Your task to perform on an android device: uninstall "Google Keep" Image 0: 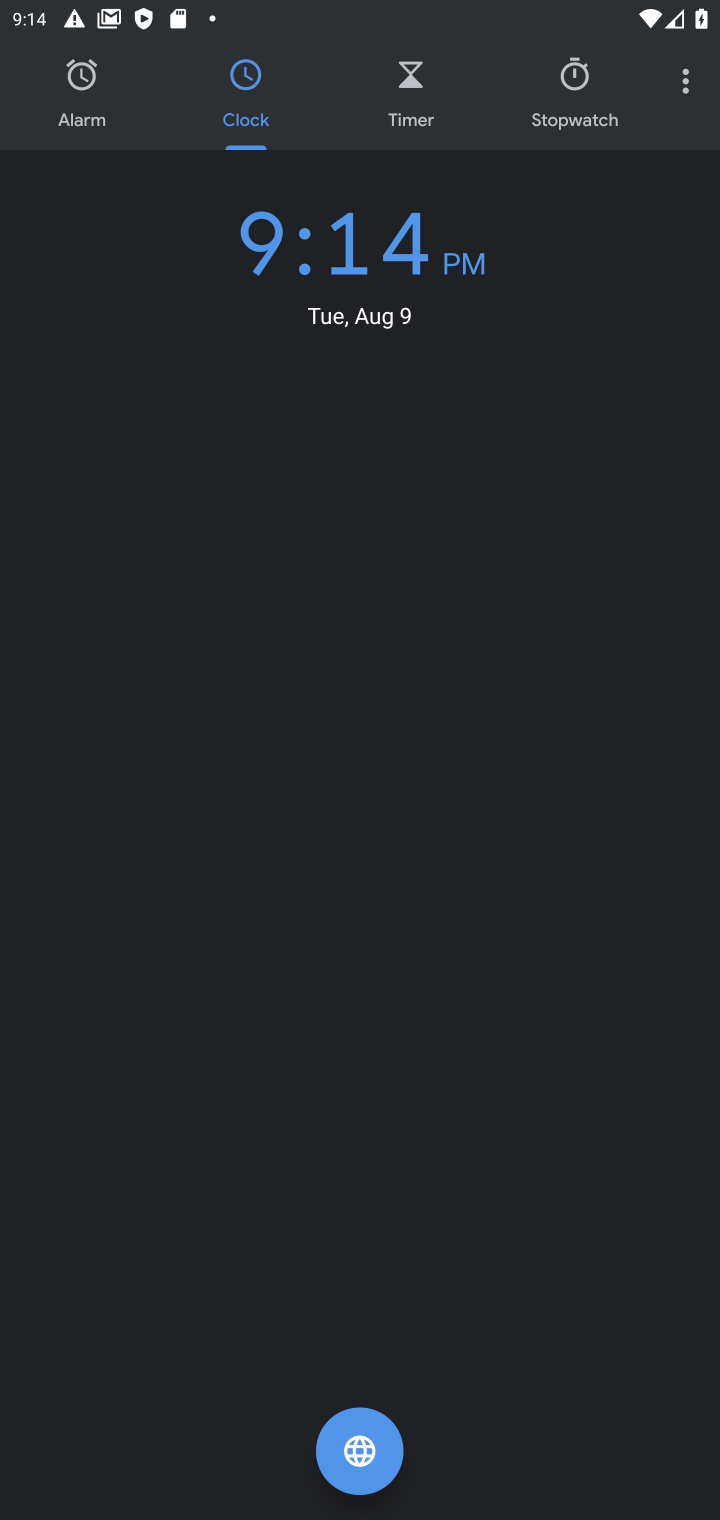
Step 0: press home button
Your task to perform on an android device: uninstall "Google Keep" Image 1: 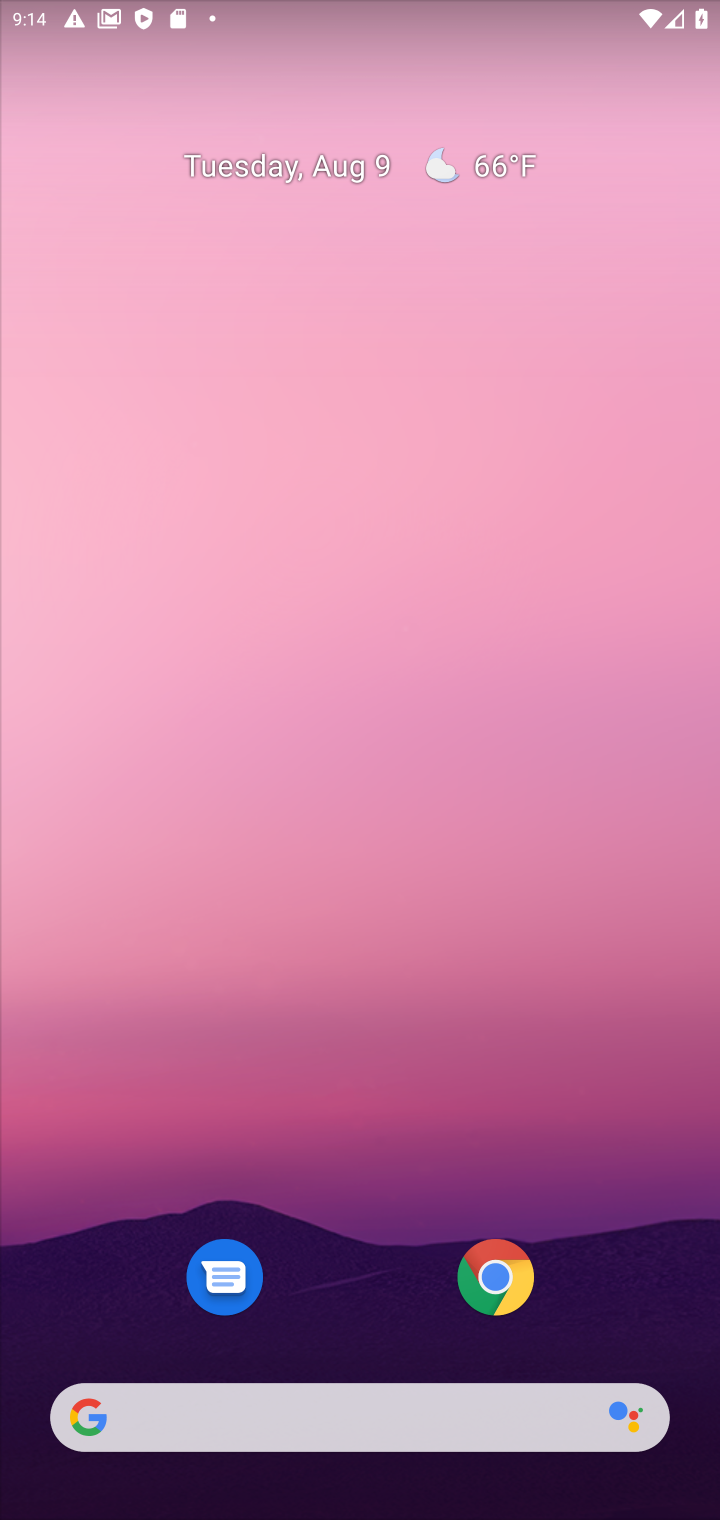
Step 1: drag from (375, 1350) to (511, 84)
Your task to perform on an android device: uninstall "Google Keep" Image 2: 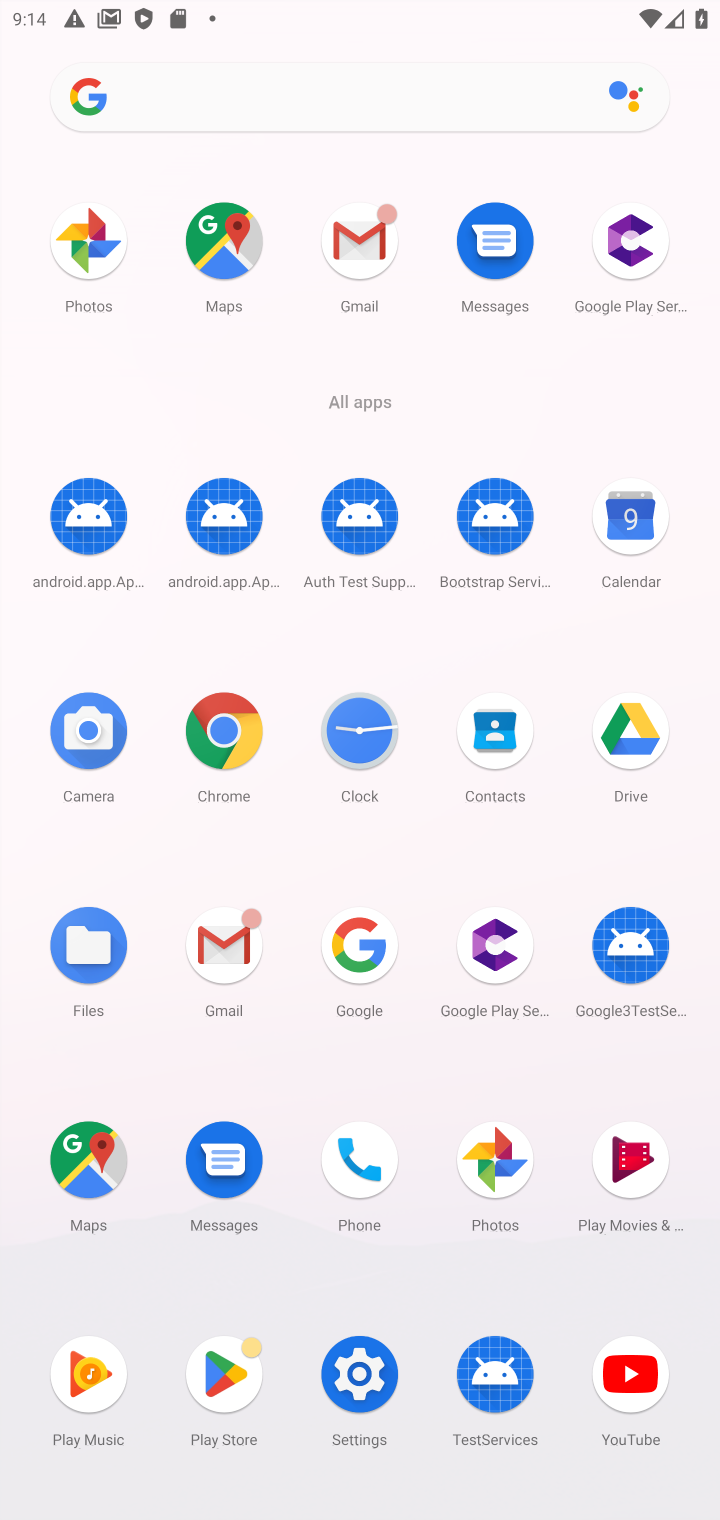
Step 2: click (229, 1367)
Your task to perform on an android device: uninstall "Google Keep" Image 3: 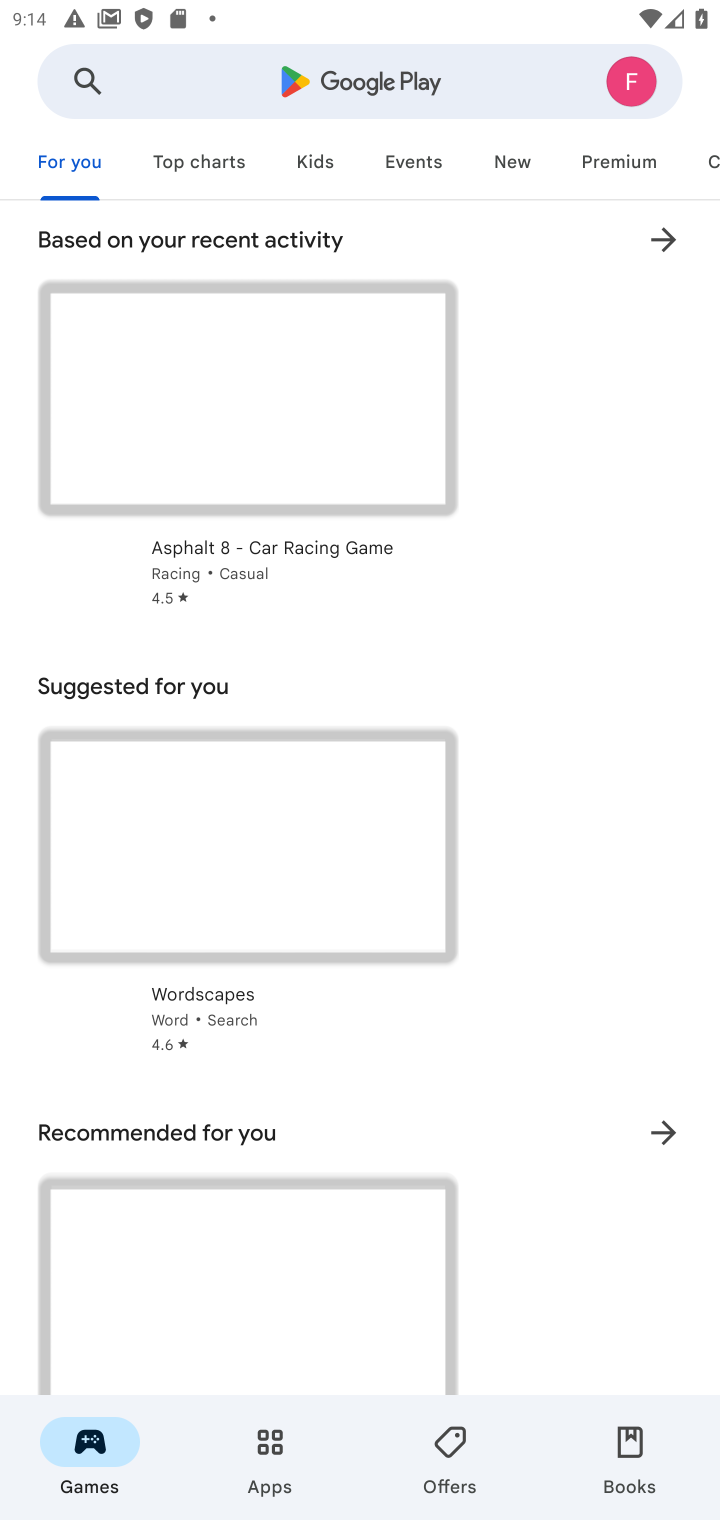
Step 3: click (194, 79)
Your task to perform on an android device: uninstall "Google Keep" Image 4: 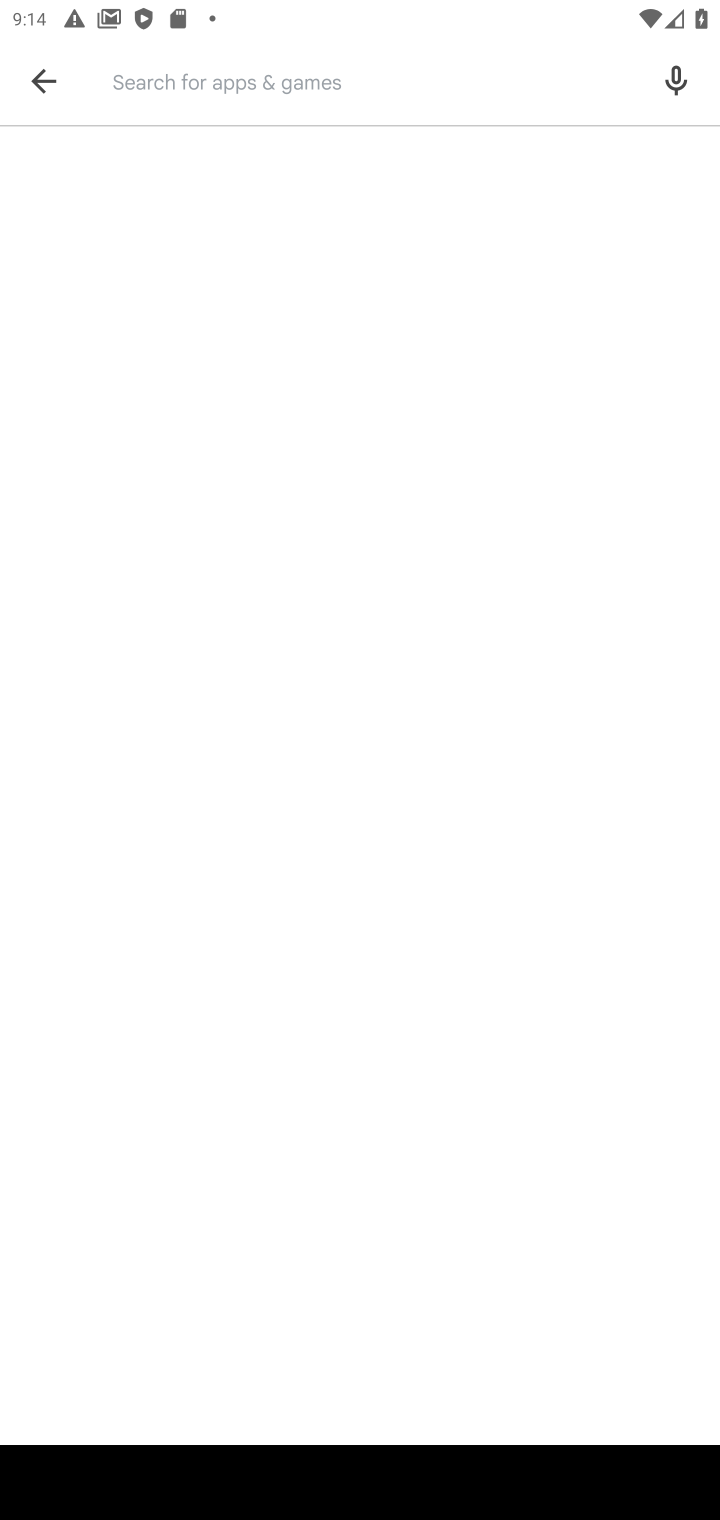
Step 4: type "Google Keep"
Your task to perform on an android device: uninstall "Google Keep" Image 5: 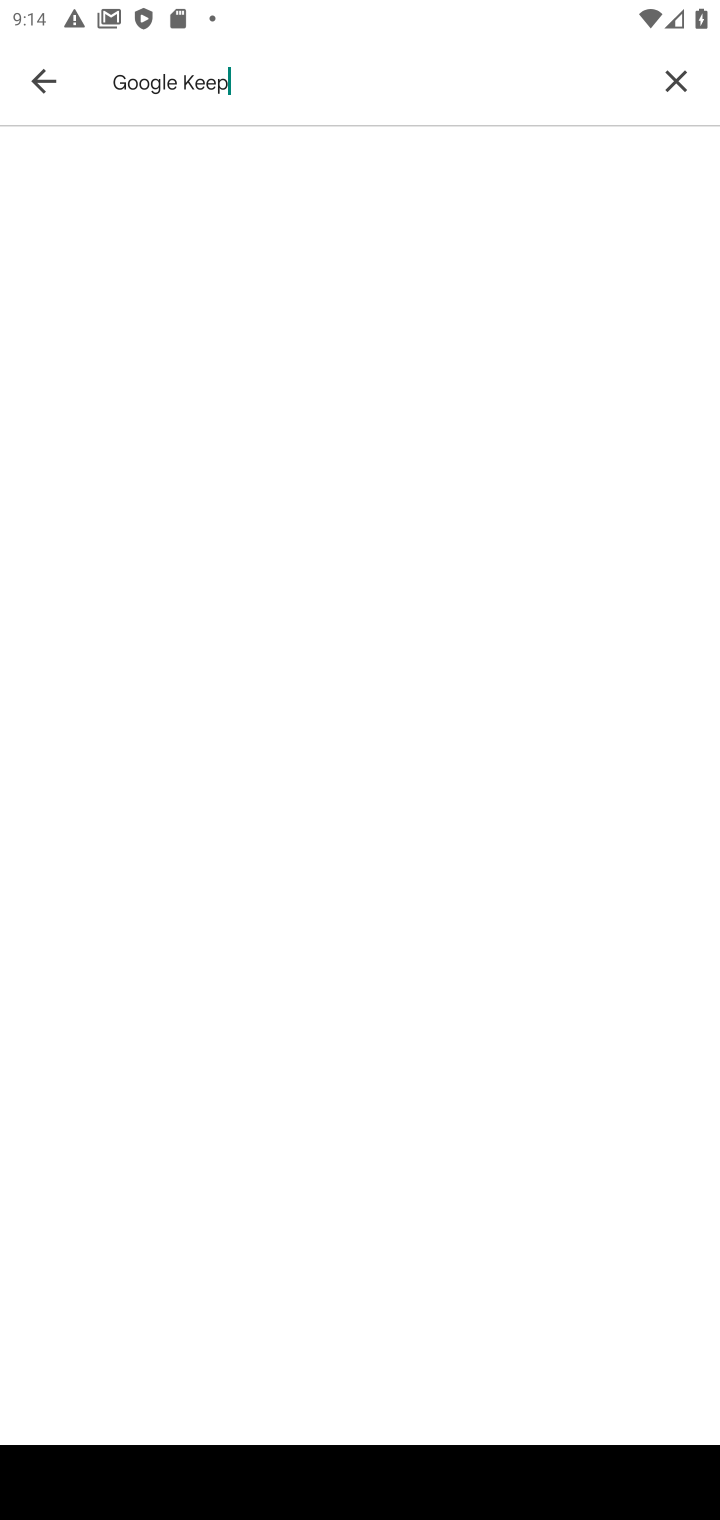
Step 5: type ""
Your task to perform on an android device: uninstall "Google Keep" Image 6: 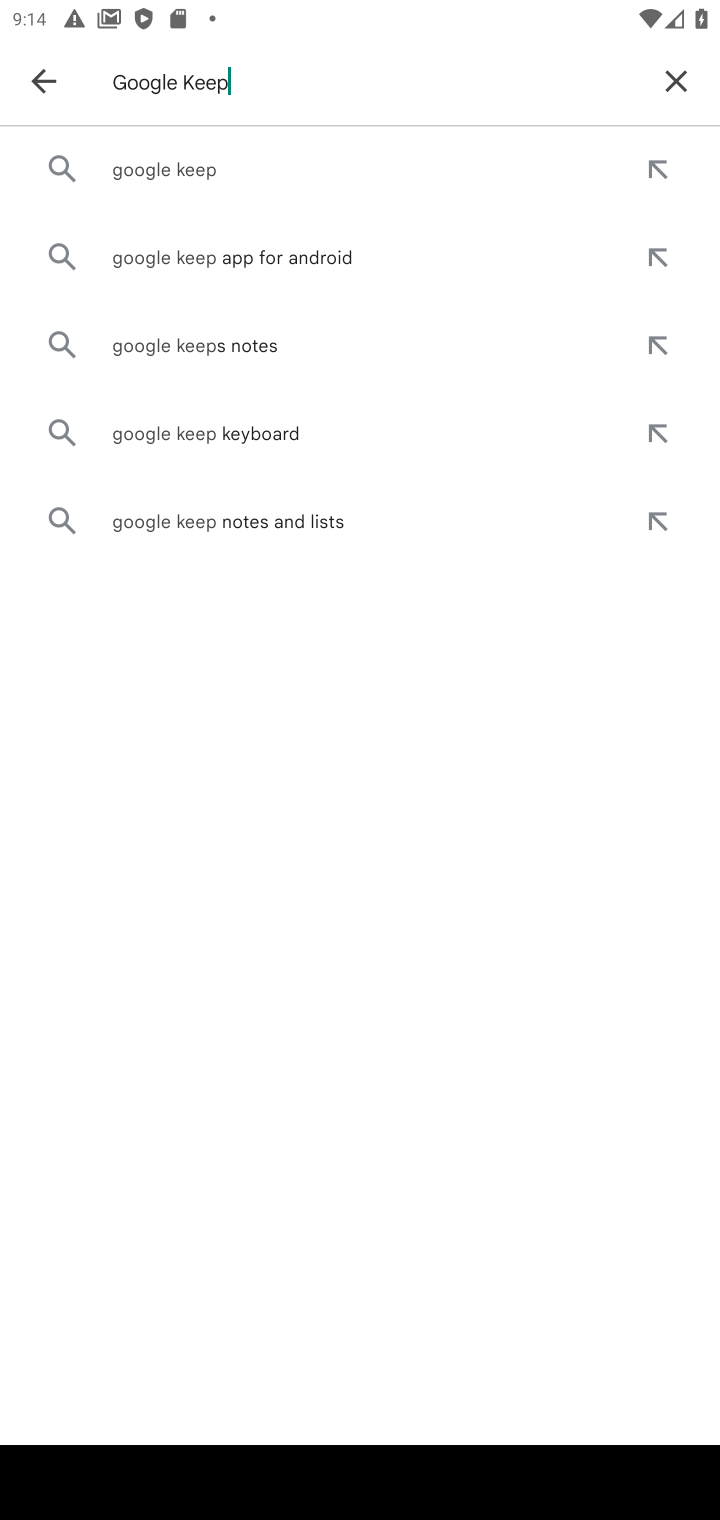
Step 6: click (194, 170)
Your task to perform on an android device: uninstall "Google Keep" Image 7: 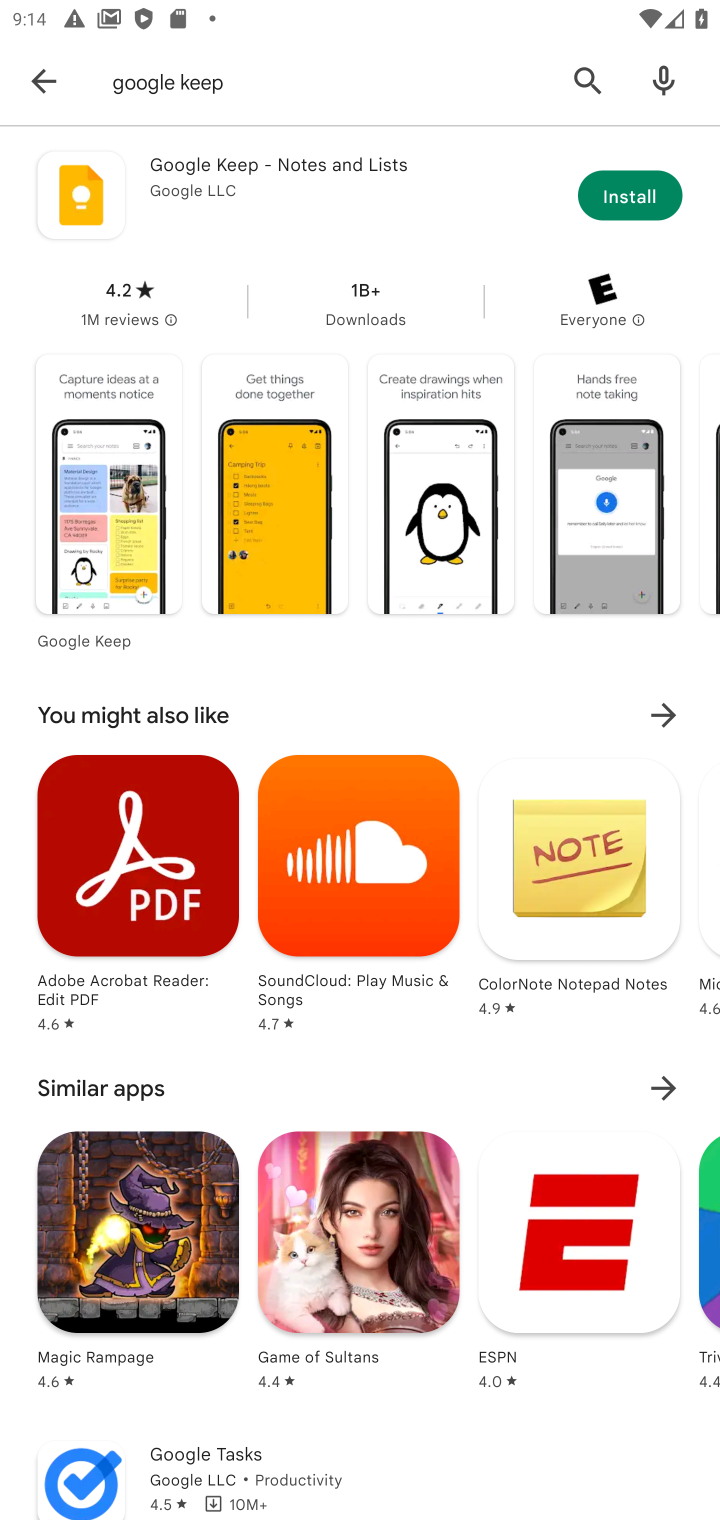
Step 7: click (134, 208)
Your task to perform on an android device: uninstall "Google Keep" Image 8: 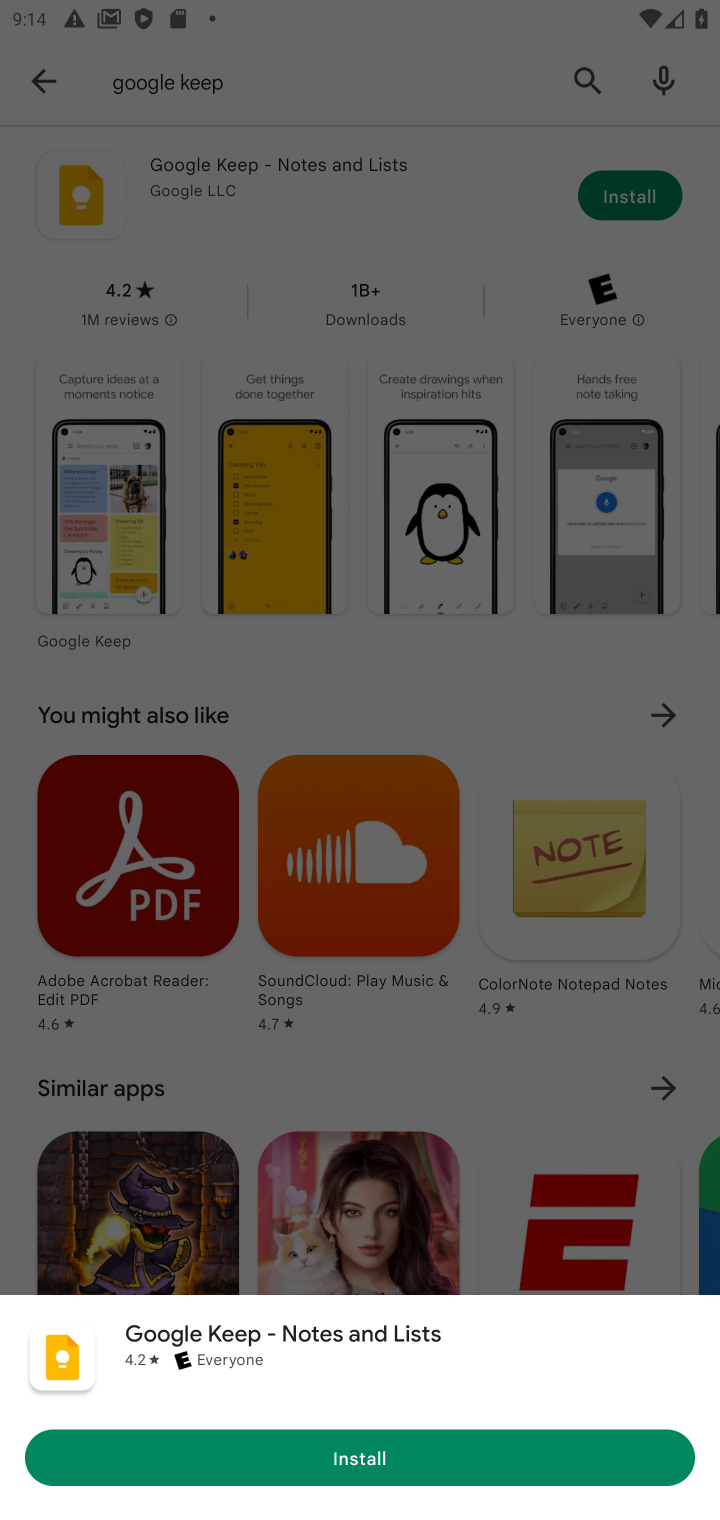
Step 8: task complete